Your task to perform on an android device: clear history in the chrome app Image 0: 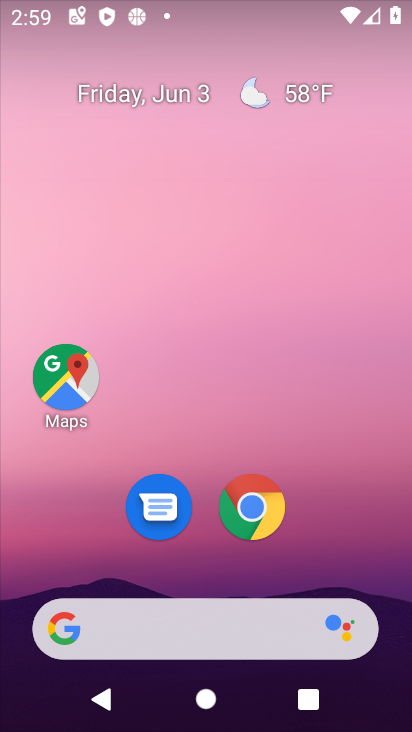
Step 0: click (254, 502)
Your task to perform on an android device: clear history in the chrome app Image 1: 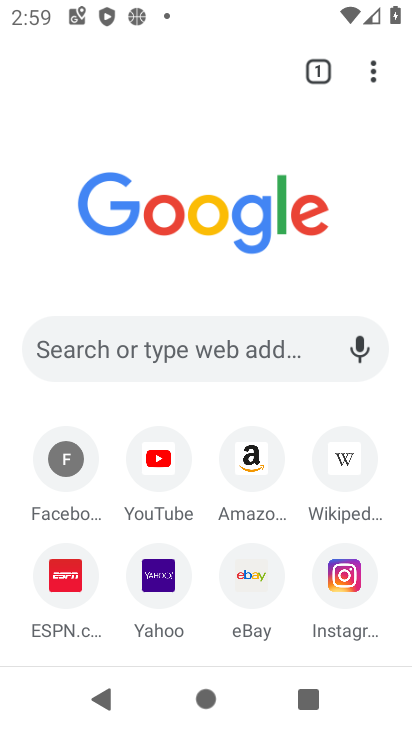
Step 1: click (376, 65)
Your task to perform on an android device: clear history in the chrome app Image 2: 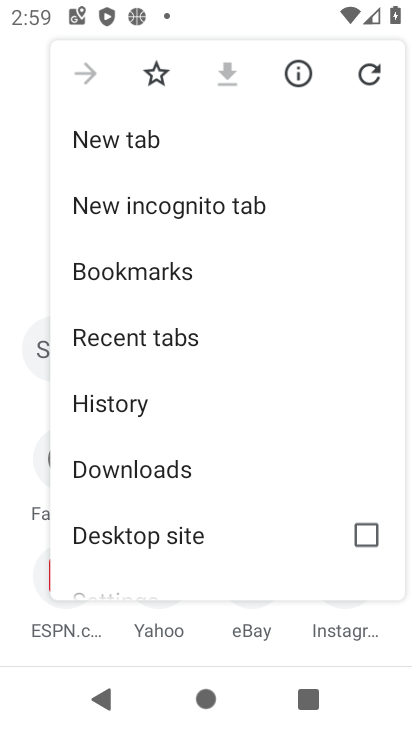
Step 2: click (130, 398)
Your task to perform on an android device: clear history in the chrome app Image 3: 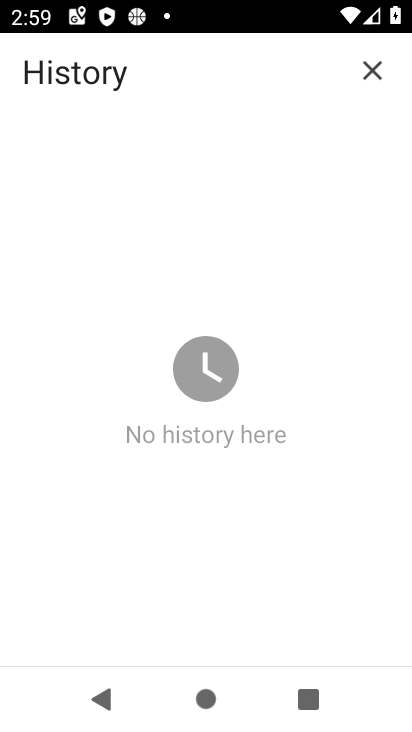
Step 3: task complete